Your task to perform on an android device: Open CNN.com Image 0: 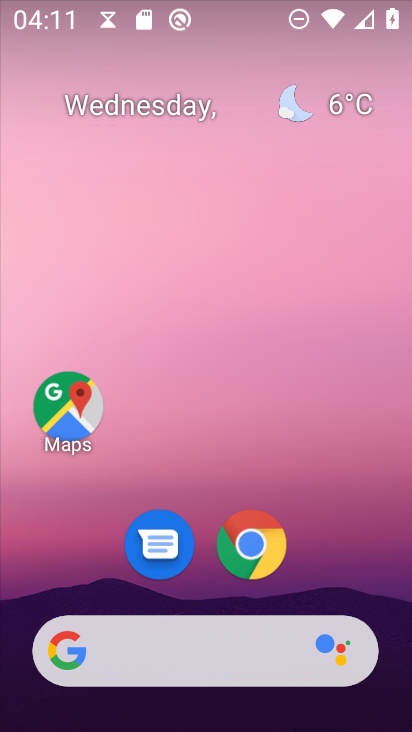
Step 0: click (259, 538)
Your task to perform on an android device: Open CNN.com Image 1: 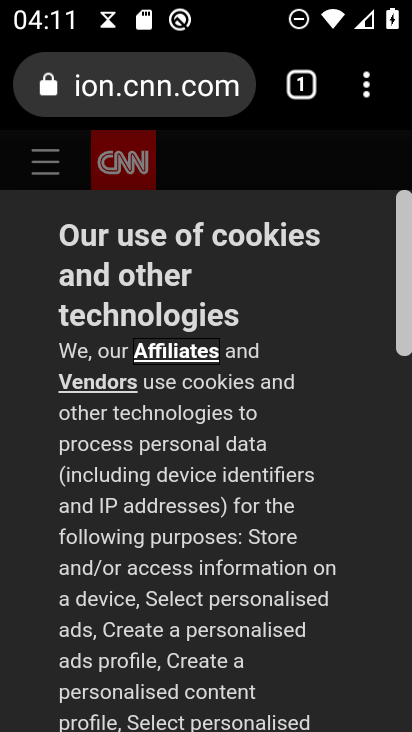
Step 1: task complete